Your task to perform on an android device: stop showing notifications on the lock screen Image 0: 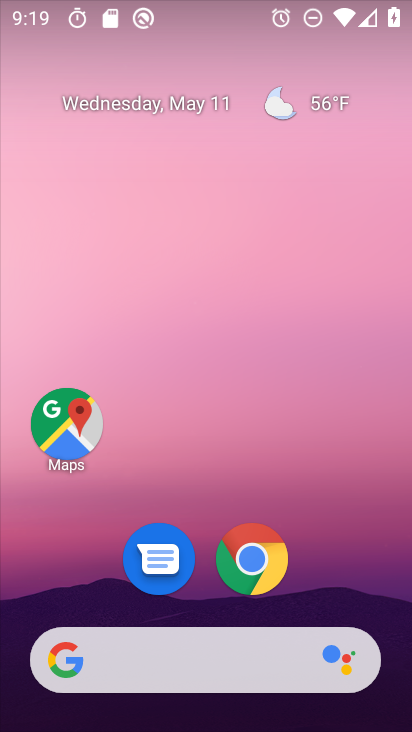
Step 0: drag from (303, 595) to (352, 55)
Your task to perform on an android device: stop showing notifications on the lock screen Image 1: 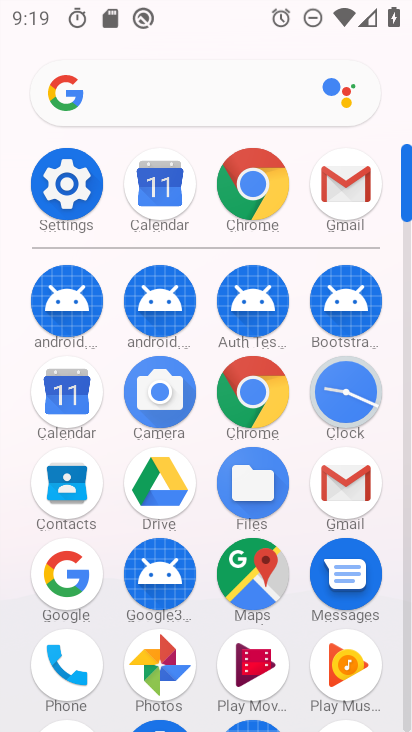
Step 1: click (69, 203)
Your task to perform on an android device: stop showing notifications on the lock screen Image 2: 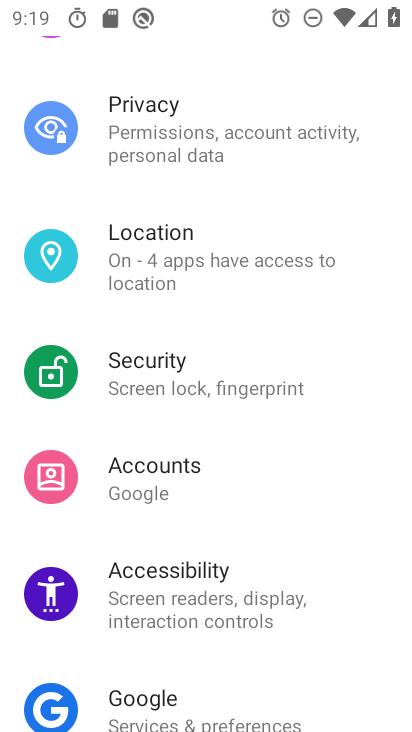
Step 2: drag from (224, 212) to (199, 593)
Your task to perform on an android device: stop showing notifications on the lock screen Image 3: 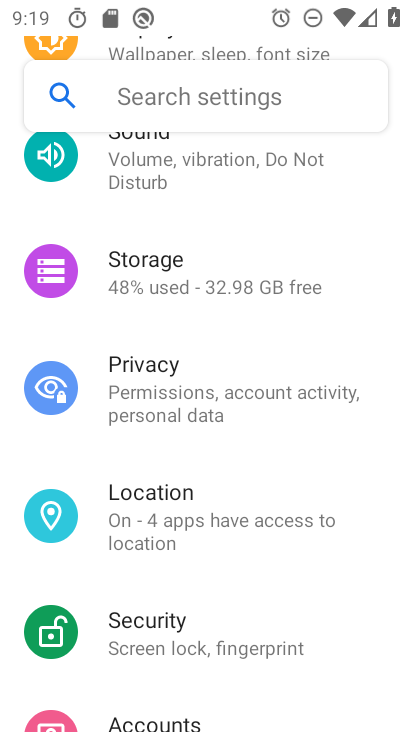
Step 3: drag from (225, 194) to (269, 582)
Your task to perform on an android device: stop showing notifications on the lock screen Image 4: 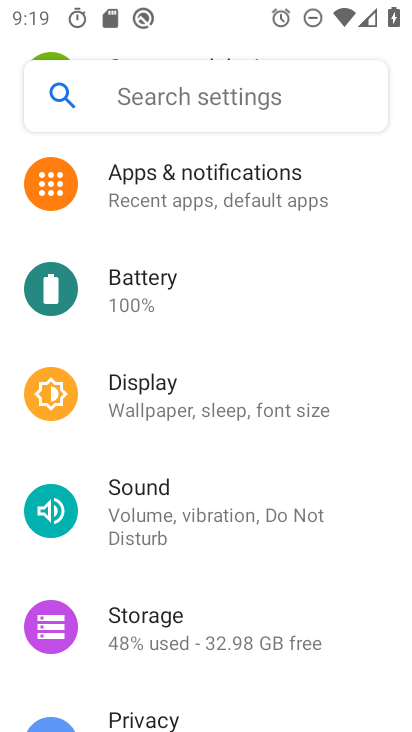
Step 4: click (216, 189)
Your task to perform on an android device: stop showing notifications on the lock screen Image 5: 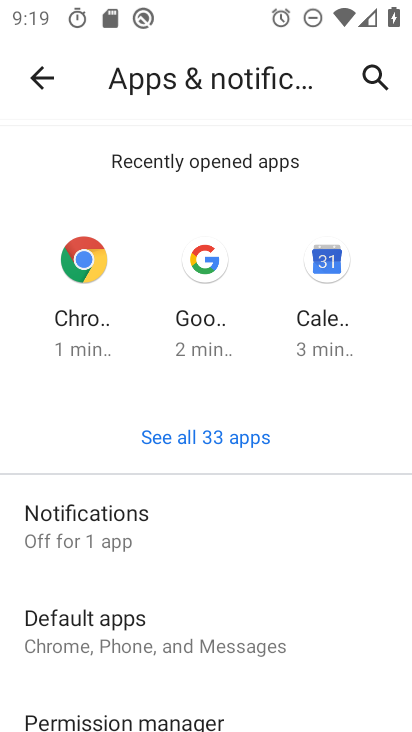
Step 5: drag from (290, 682) to (258, 330)
Your task to perform on an android device: stop showing notifications on the lock screen Image 6: 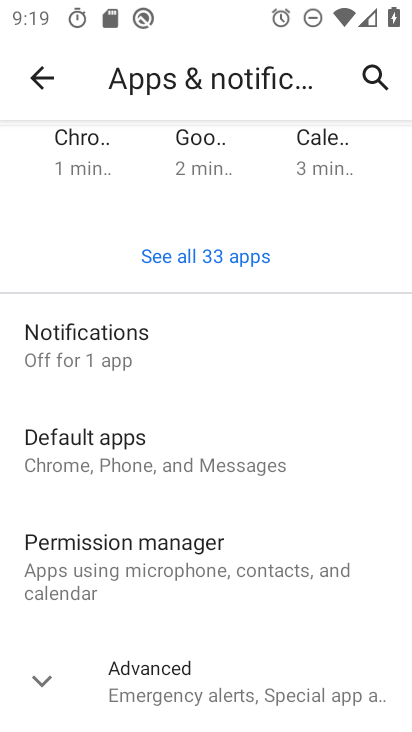
Step 6: click (112, 345)
Your task to perform on an android device: stop showing notifications on the lock screen Image 7: 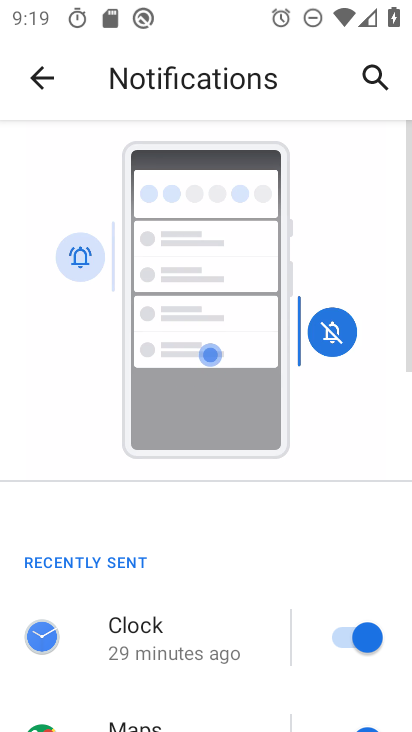
Step 7: drag from (187, 626) to (228, 177)
Your task to perform on an android device: stop showing notifications on the lock screen Image 8: 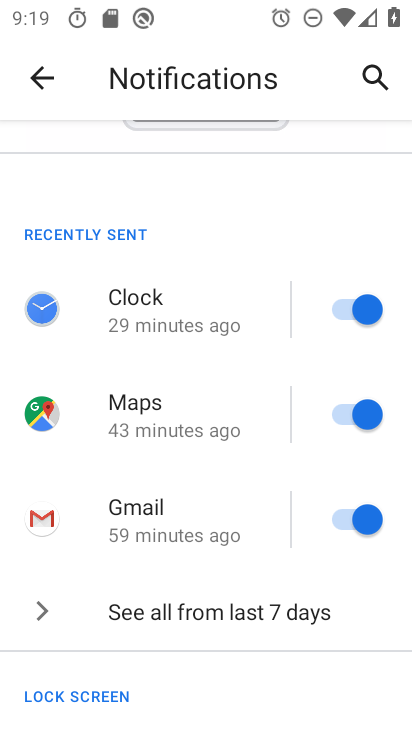
Step 8: drag from (146, 690) to (192, 291)
Your task to perform on an android device: stop showing notifications on the lock screen Image 9: 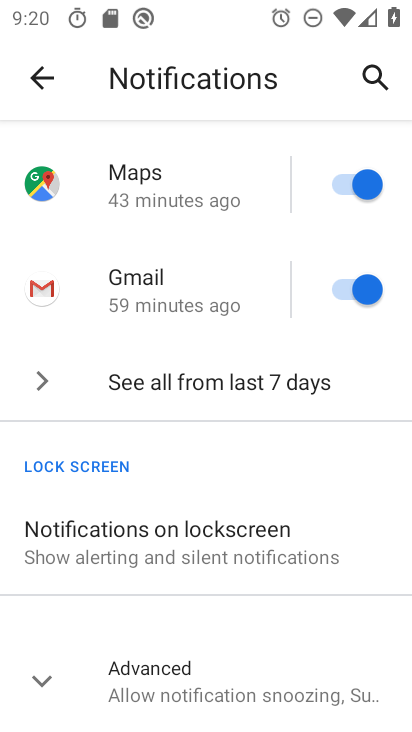
Step 9: click (207, 548)
Your task to perform on an android device: stop showing notifications on the lock screen Image 10: 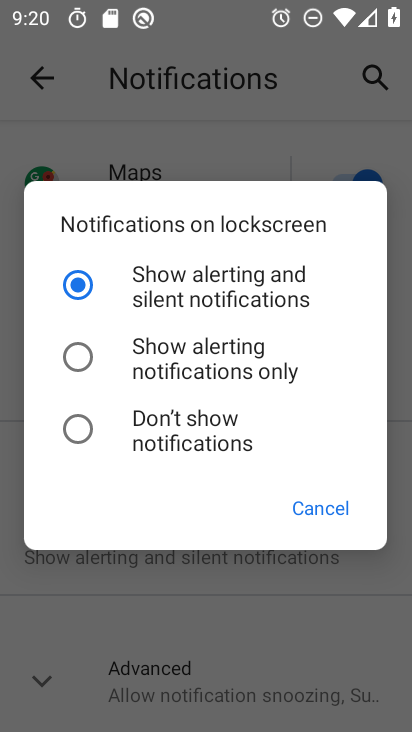
Step 10: click (81, 426)
Your task to perform on an android device: stop showing notifications on the lock screen Image 11: 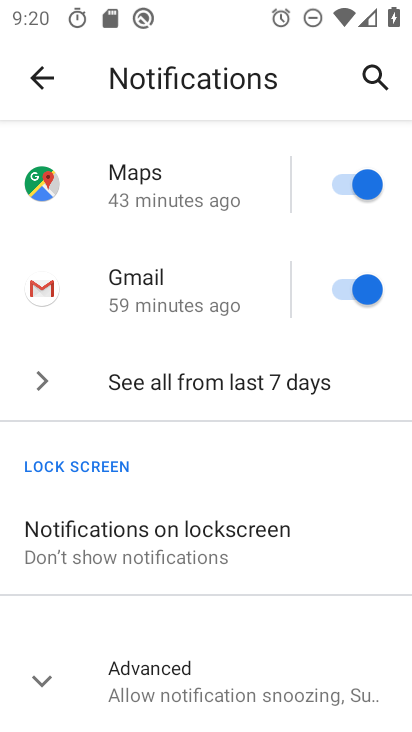
Step 11: task complete